Your task to perform on an android device: Open settings Image 0: 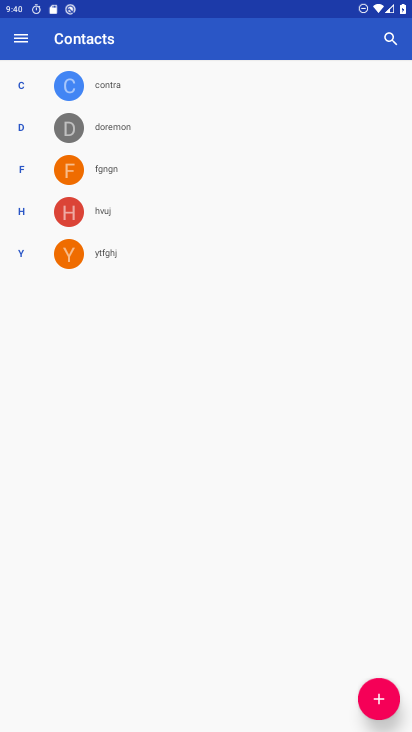
Step 0: press home button
Your task to perform on an android device: Open settings Image 1: 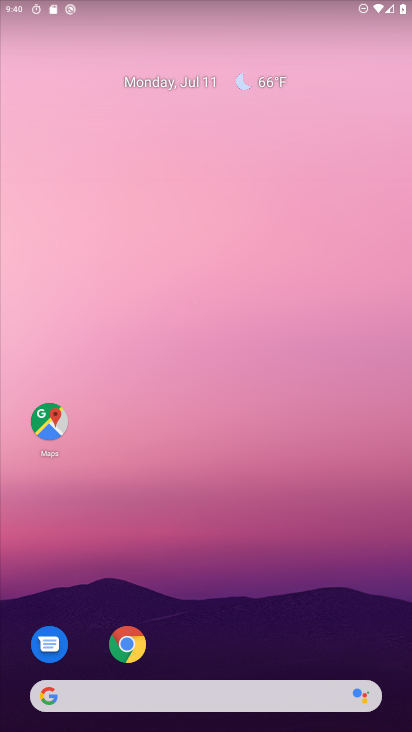
Step 1: drag from (314, 589) to (242, 256)
Your task to perform on an android device: Open settings Image 2: 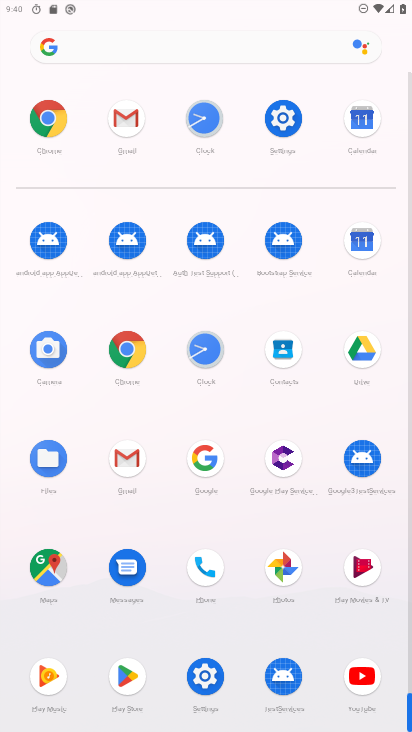
Step 2: click (291, 114)
Your task to perform on an android device: Open settings Image 3: 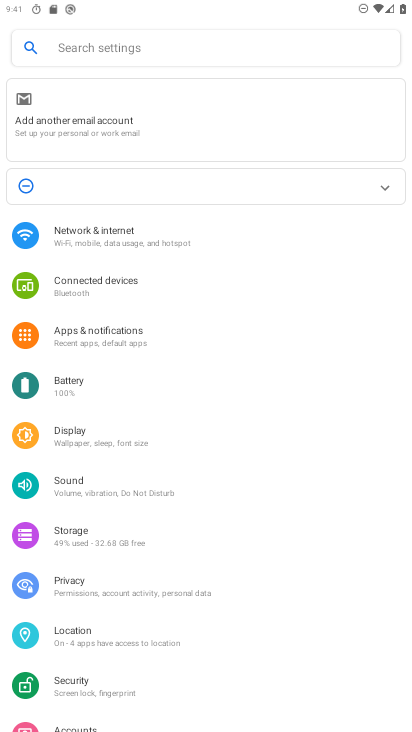
Step 3: task complete